Your task to perform on an android device: What's a good restaurant in Dallas? Image 0: 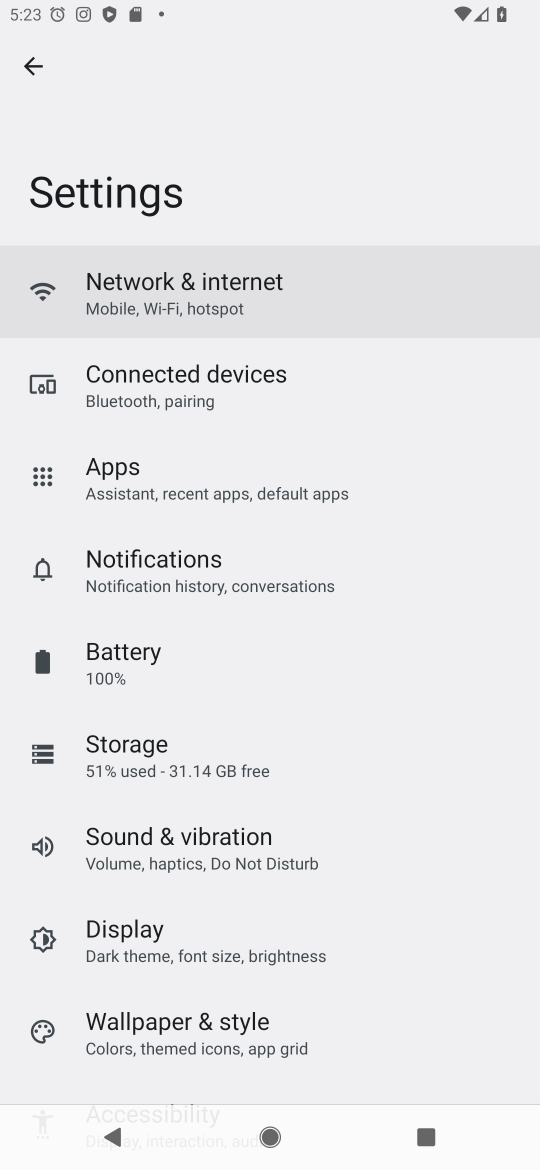
Step 0: press home button
Your task to perform on an android device: What's a good restaurant in Dallas? Image 1: 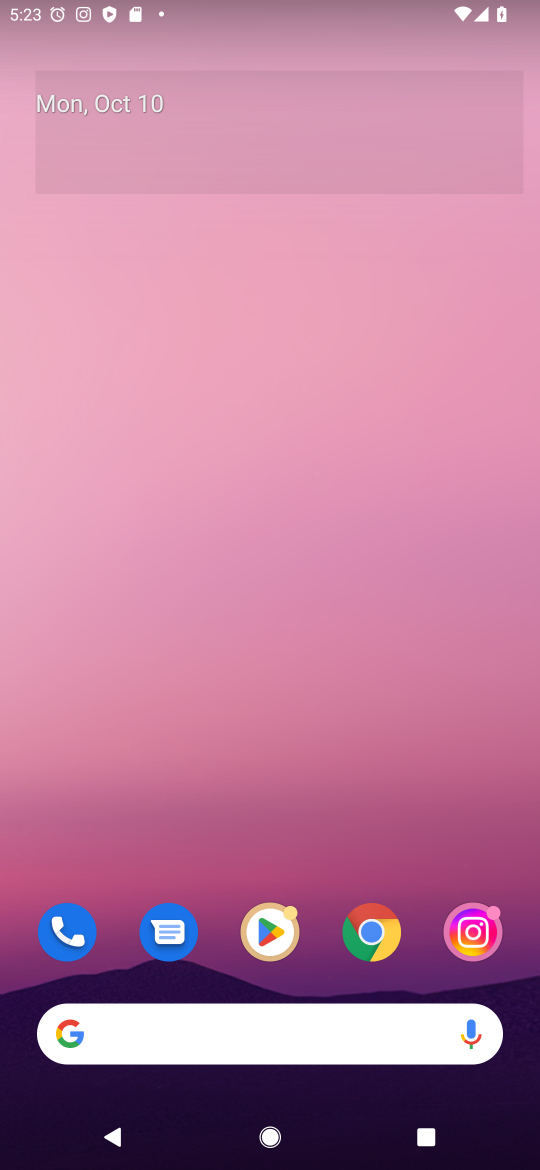
Step 1: click (310, 1035)
Your task to perform on an android device: What's a good restaurant in Dallas? Image 2: 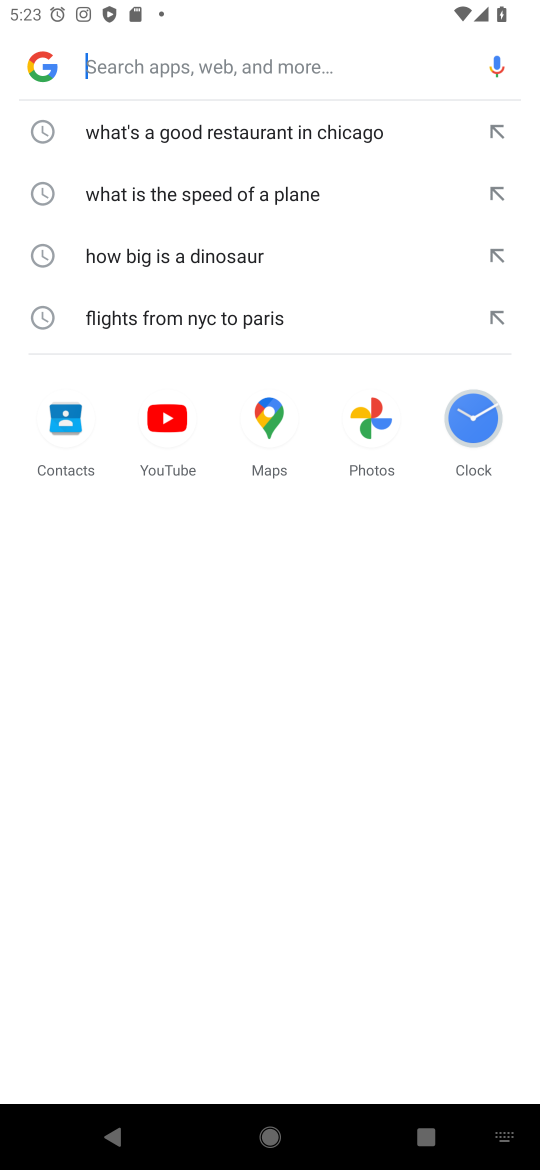
Step 2: type "What's a good restaurant in Dallas"
Your task to perform on an android device: What's a good restaurant in Dallas? Image 3: 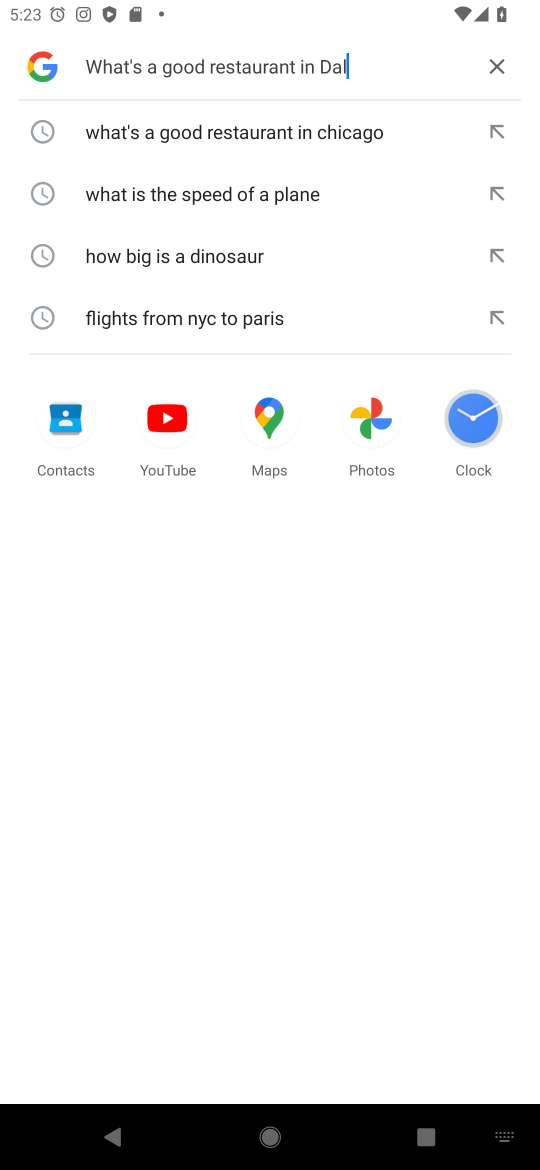
Step 3: press enter
Your task to perform on an android device: What's a good restaurant in Dallas? Image 4: 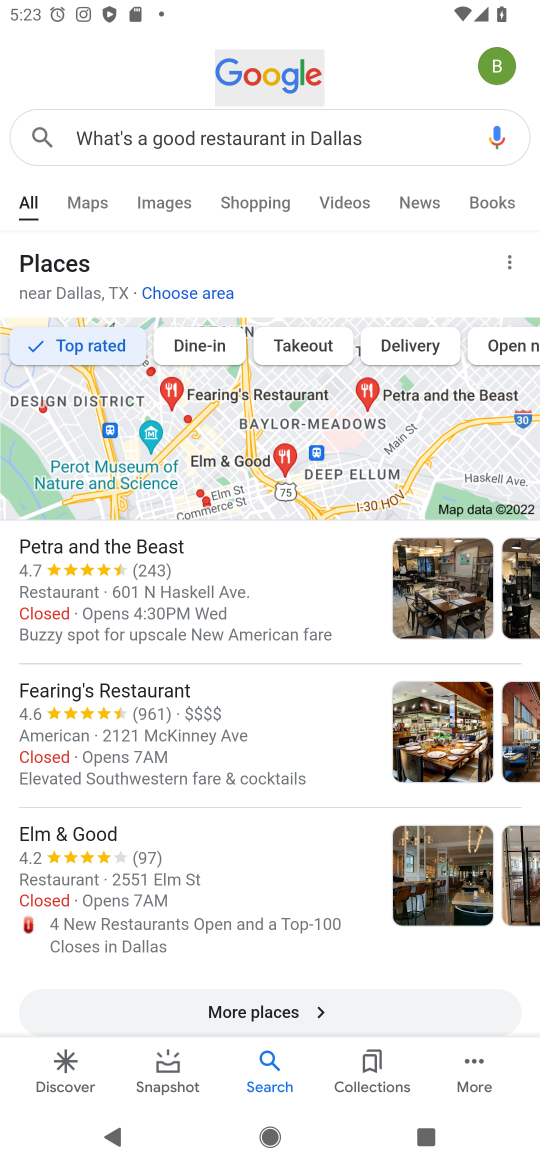
Step 4: drag from (259, 792) to (260, 544)
Your task to perform on an android device: What's a good restaurant in Dallas? Image 5: 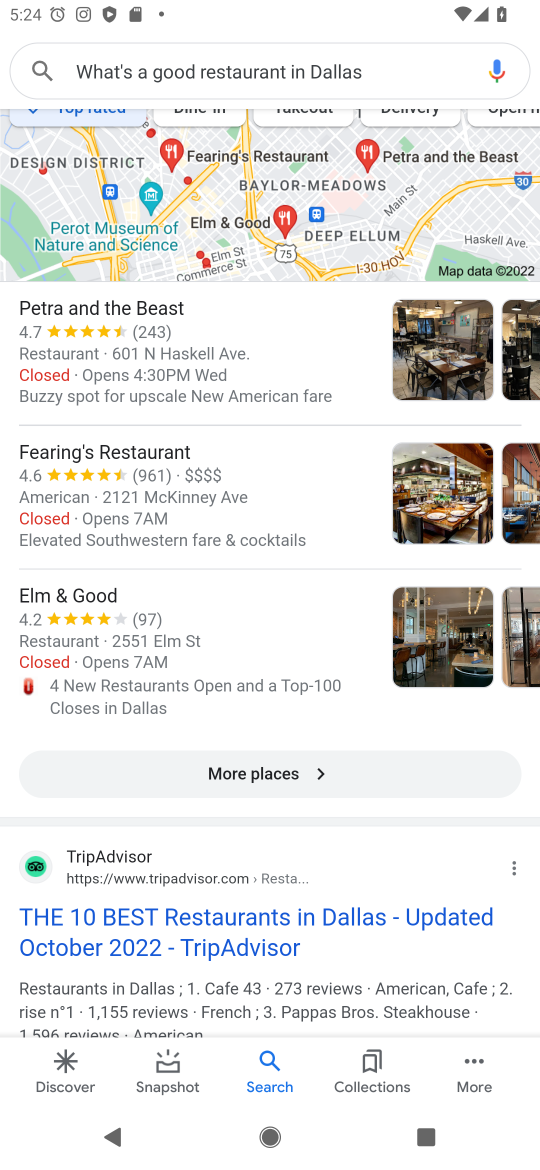
Step 5: drag from (300, 935) to (301, 690)
Your task to perform on an android device: What's a good restaurant in Dallas? Image 6: 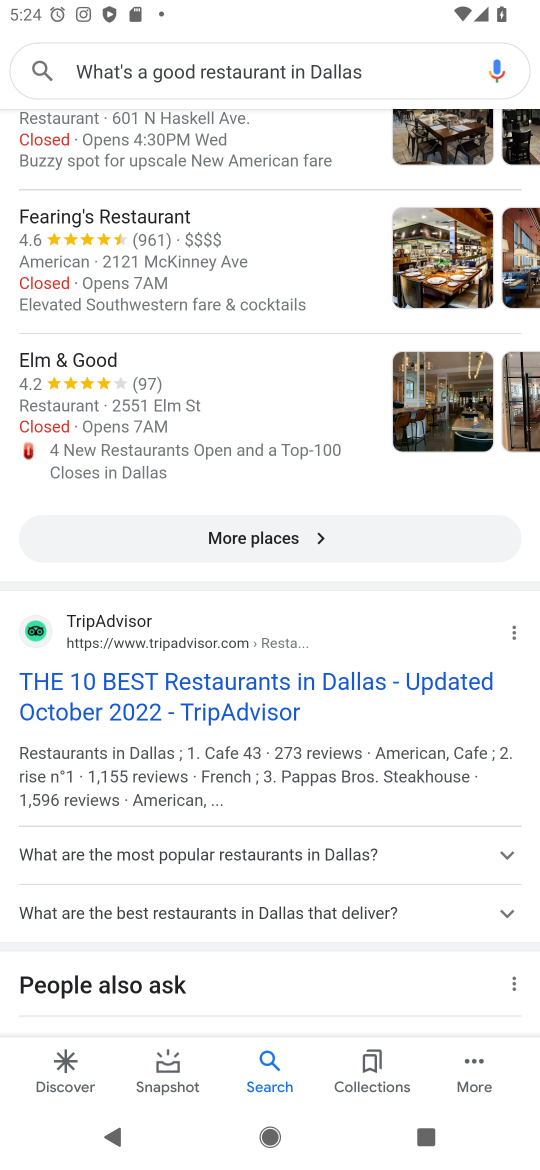
Step 6: click (291, 701)
Your task to perform on an android device: What's a good restaurant in Dallas? Image 7: 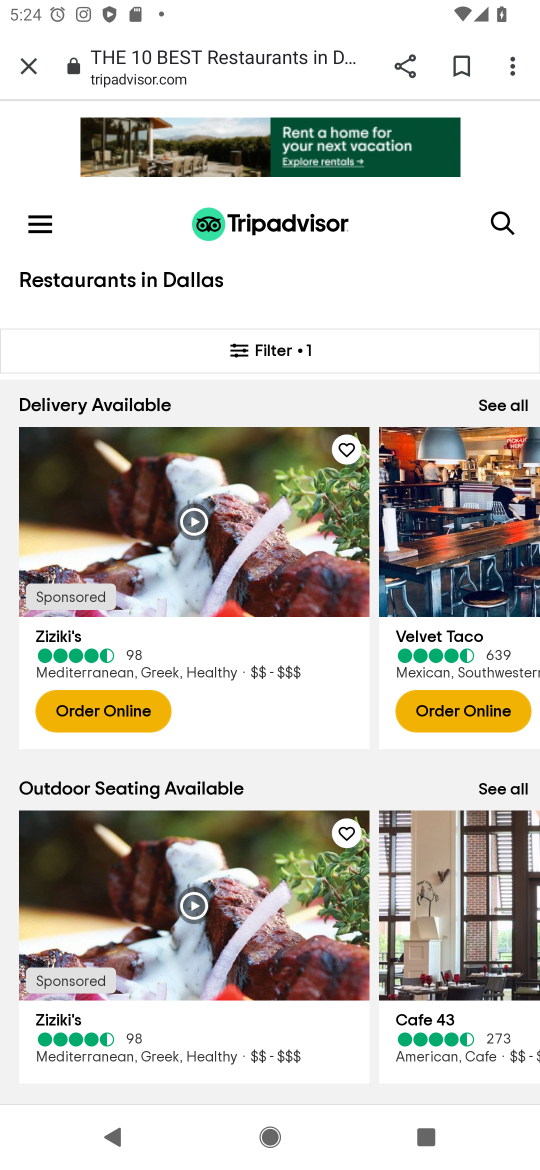
Step 7: task complete